Your task to perform on an android device: Go to wifi settings Image 0: 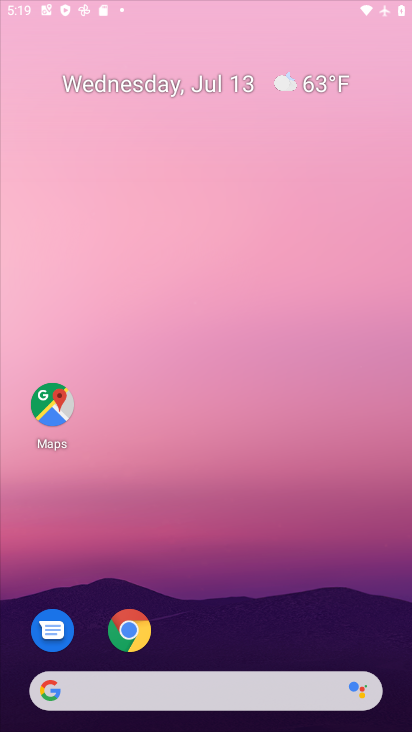
Step 0: press home button
Your task to perform on an android device: Go to wifi settings Image 1: 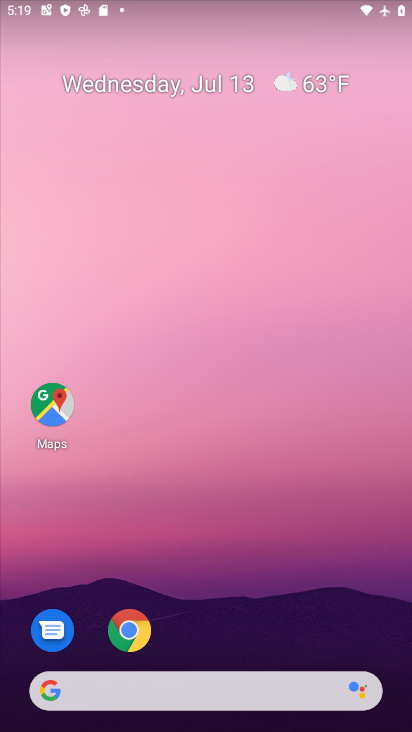
Step 1: drag from (247, 620) to (172, 60)
Your task to perform on an android device: Go to wifi settings Image 2: 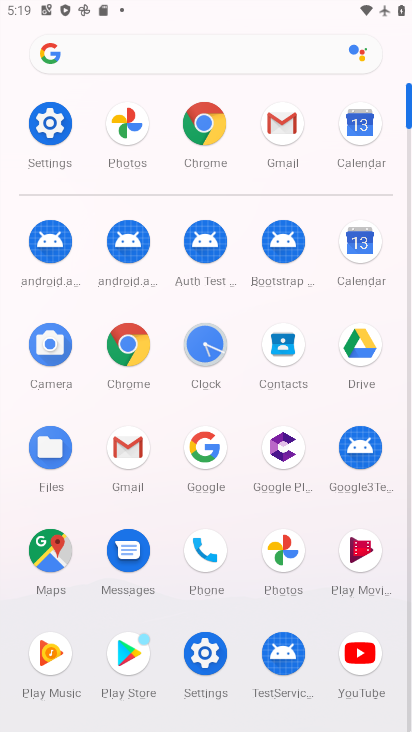
Step 2: click (48, 134)
Your task to perform on an android device: Go to wifi settings Image 3: 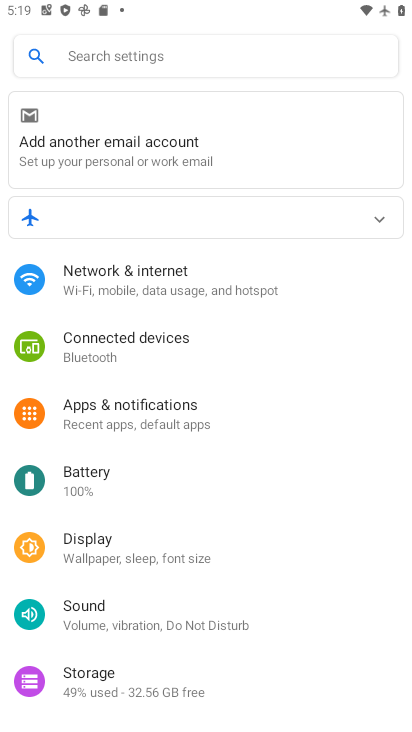
Step 3: click (129, 290)
Your task to perform on an android device: Go to wifi settings Image 4: 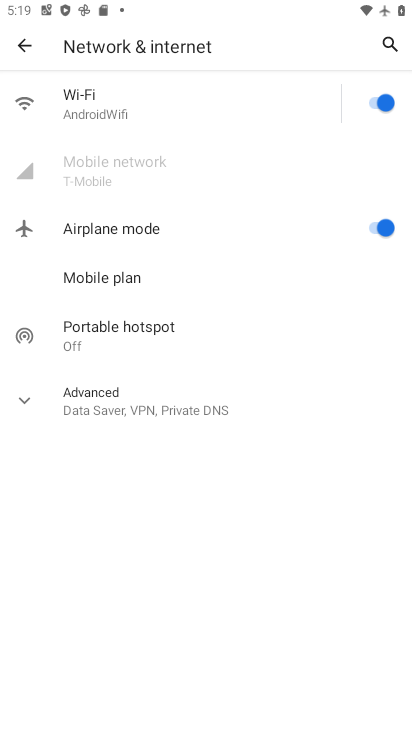
Step 4: click (98, 107)
Your task to perform on an android device: Go to wifi settings Image 5: 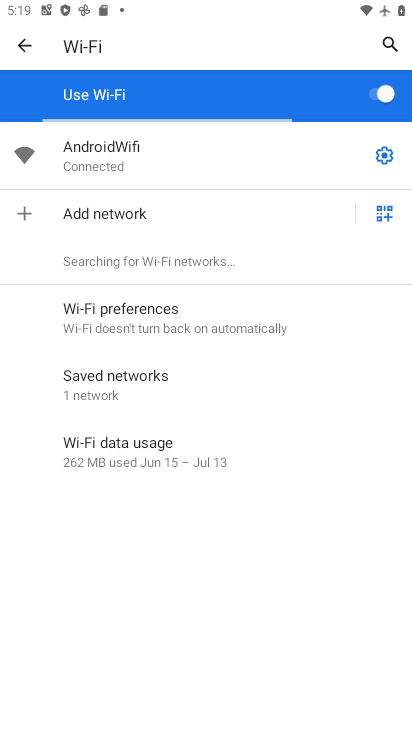
Step 5: task complete